Your task to perform on an android device: toggle sleep mode Image 0: 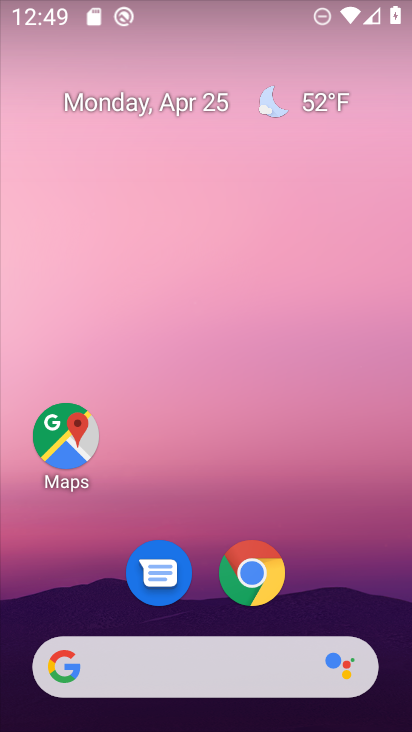
Step 0: drag from (179, 685) to (168, 110)
Your task to perform on an android device: toggle sleep mode Image 1: 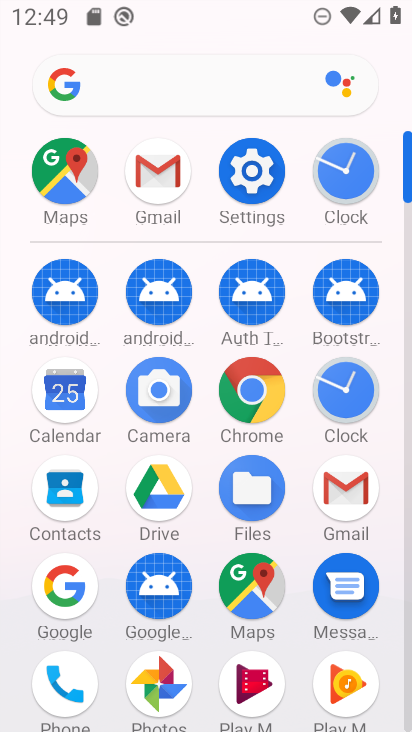
Step 1: click (250, 171)
Your task to perform on an android device: toggle sleep mode Image 2: 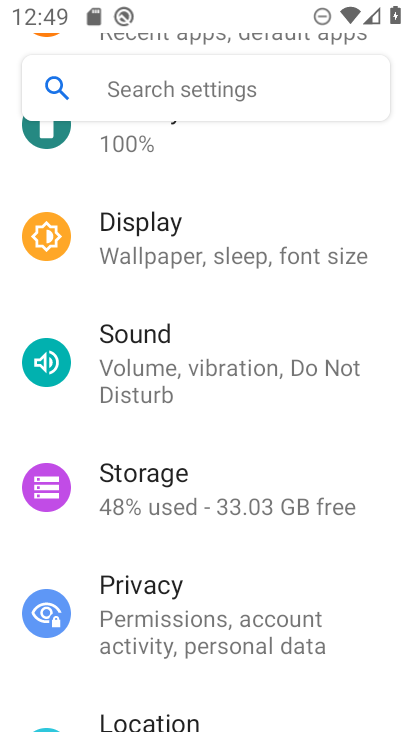
Step 2: drag from (182, 690) to (163, 105)
Your task to perform on an android device: toggle sleep mode Image 3: 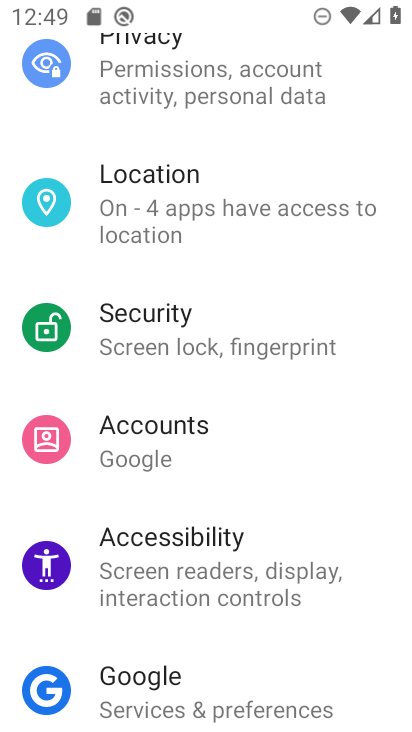
Step 3: drag from (205, 638) to (201, 170)
Your task to perform on an android device: toggle sleep mode Image 4: 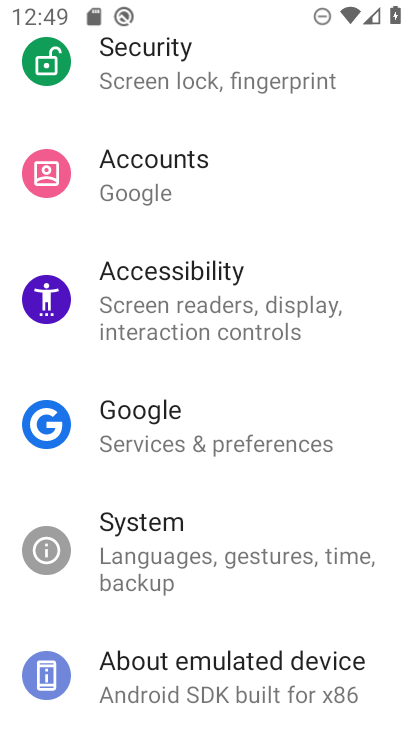
Step 4: drag from (217, 125) to (240, 626)
Your task to perform on an android device: toggle sleep mode Image 5: 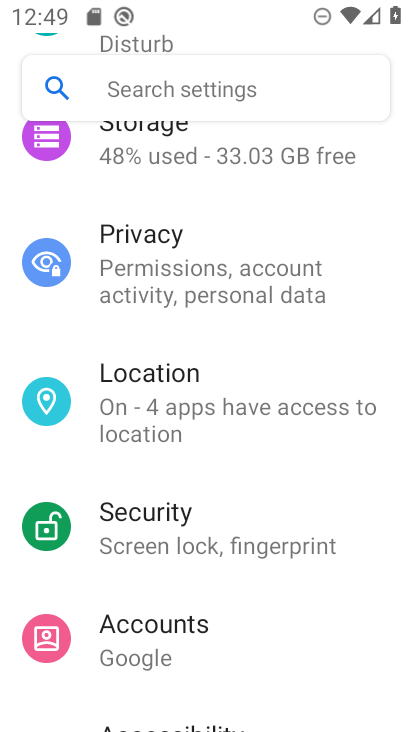
Step 5: drag from (234, 149) to (236, 575)
Your task to perform on an android device: toggle sleep mode Image 6: 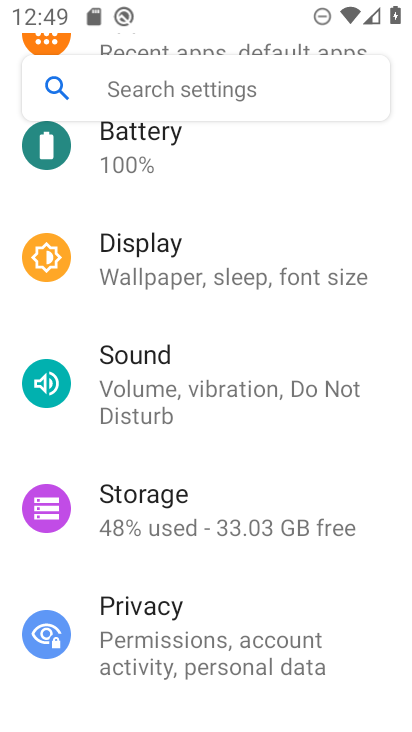
Step 6: drag from (212, 221) to (239, 631)
Your task to perform on an android device: toggle sleep mode Image 7: 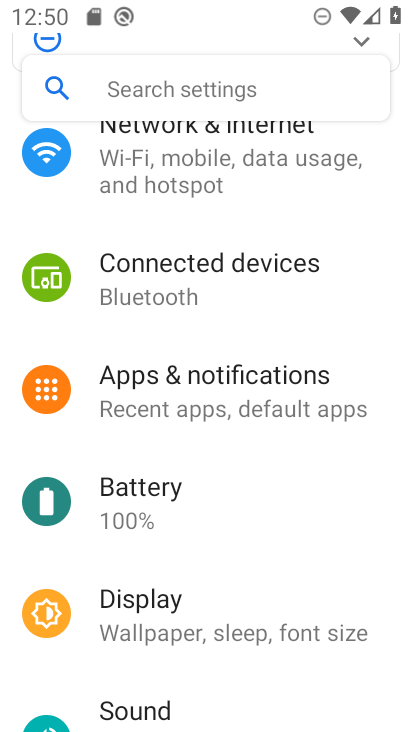
Step 7: drag from (225, 678) to (206, 296)
Your task to perform on an android device: toggle sleep mode Image 8: 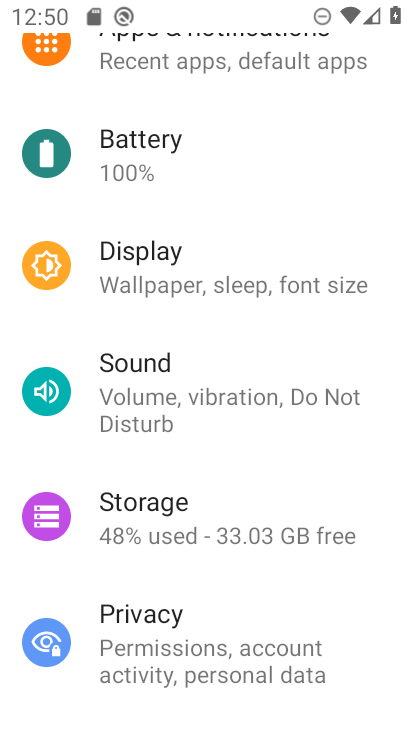
Step 8: click (198, 271)
Your task to perform on an android device: toggle sleep mode Image 9: 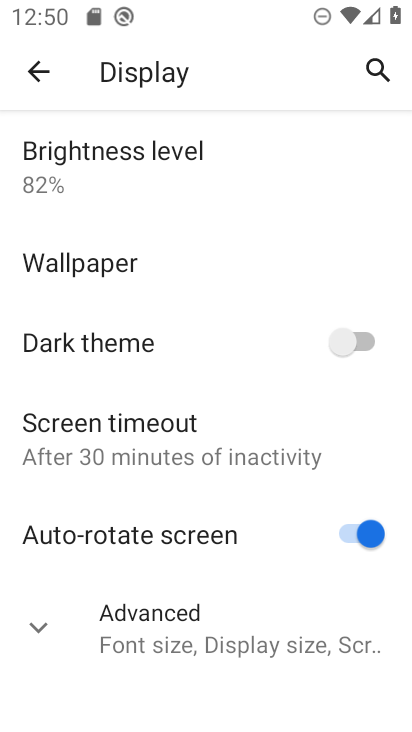
Step 9: click (47, 74)
Your task to perform on an android device: toggle sleep mode Image 10: 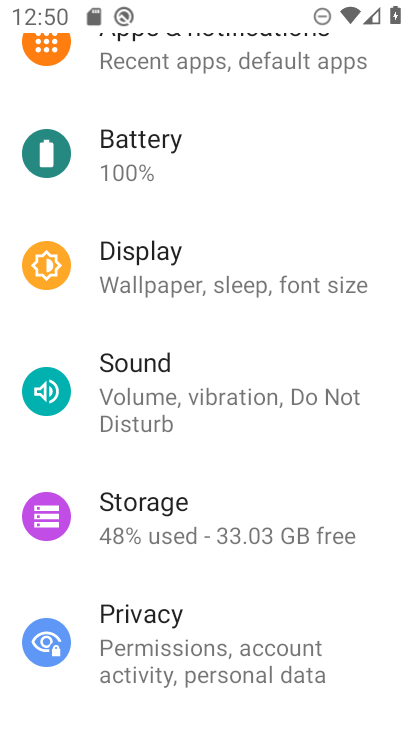
Step 10: task complete